Your task to perform on an android device: turn off notifications settings in the gmail app Image 0: 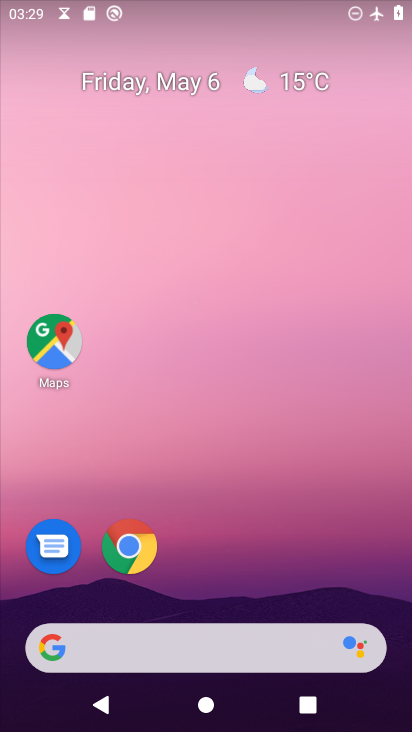
Step 0: drag from (204, 531) to (202, 141)
Your task to perform on an android device: turn off notifications settings in the gmail app Image 1: 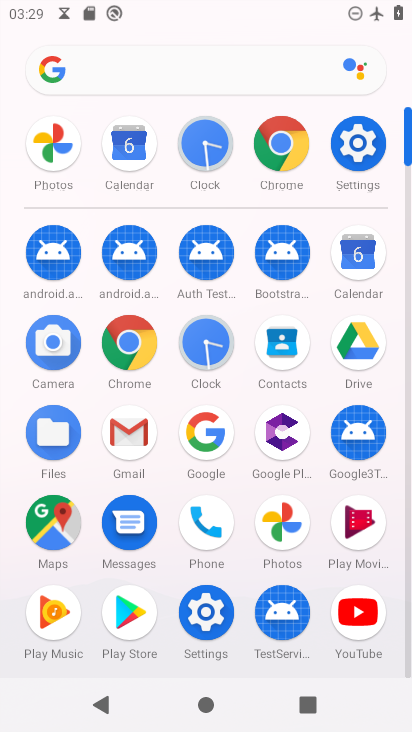
Step 1: click (137, 440)
Your task to perform on an android device: turn off notifications settings in the gmail app Image 2: 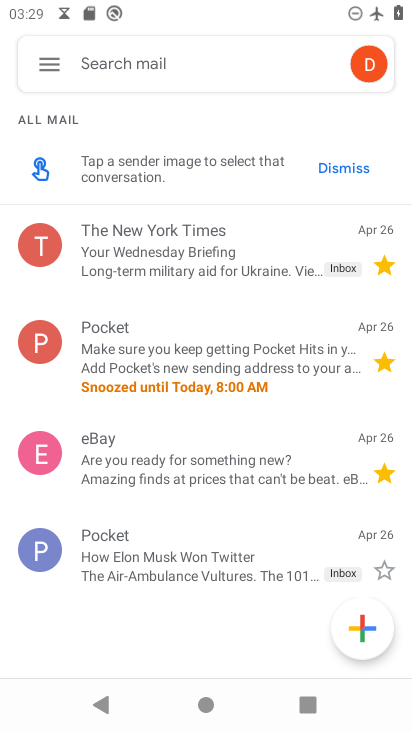
Step 2: click (57, 67)
Your task to perform on an android device: turn off notifications settings in the gmail app Image 3: 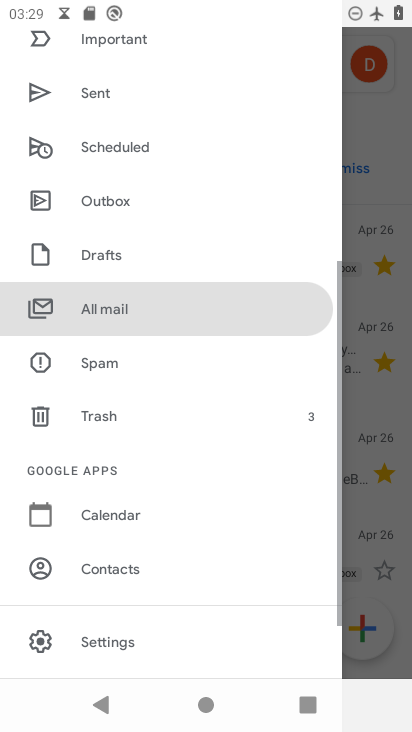
Step 3: click (100, 641)
Your task to perform on an android device: turn off notifications settings in the gmail app Image 4: 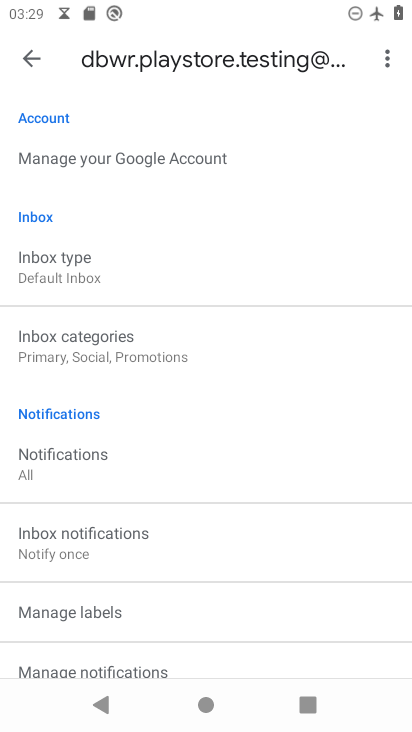
Step 4: click (98, 664)
Your task to perform on an android device: turn off notifications settings in the gmail app Image 5: 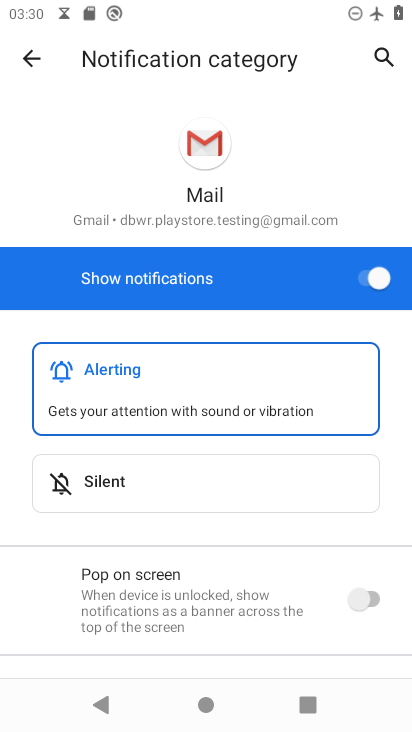
Step 5: drag from (144, 632) to (181, 459)
Your task to perform on an android device: turn off notifications settings in the gmail app Image 6: 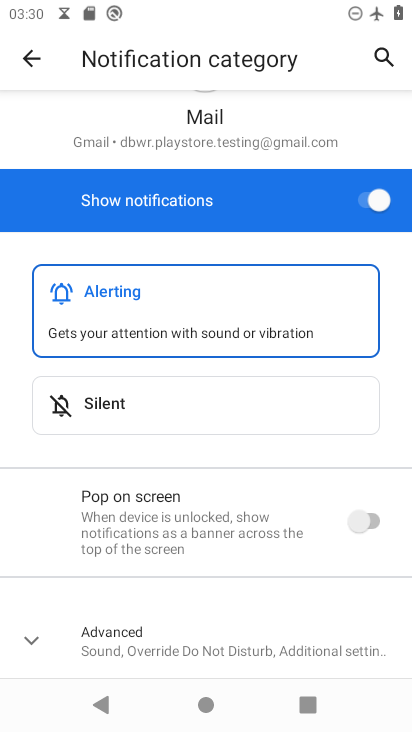
Step 6: click (362, 195)
Your task to perform on an android device: turn off notifications settings in the gmail app Image 7: 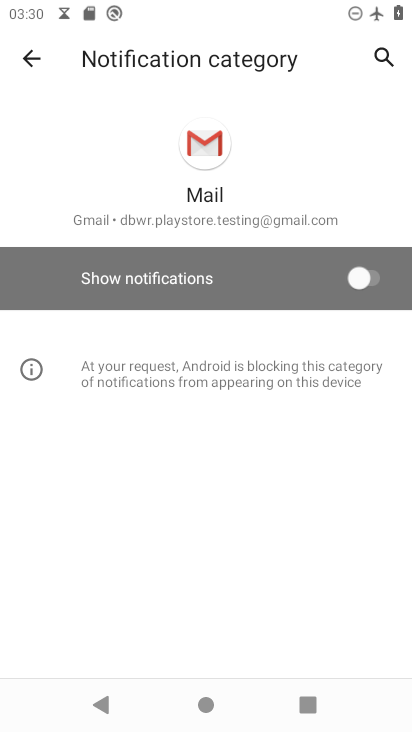
Step 7: task complete